Your task to perform on an android device: Show me the alarms in the clock app Image 0: 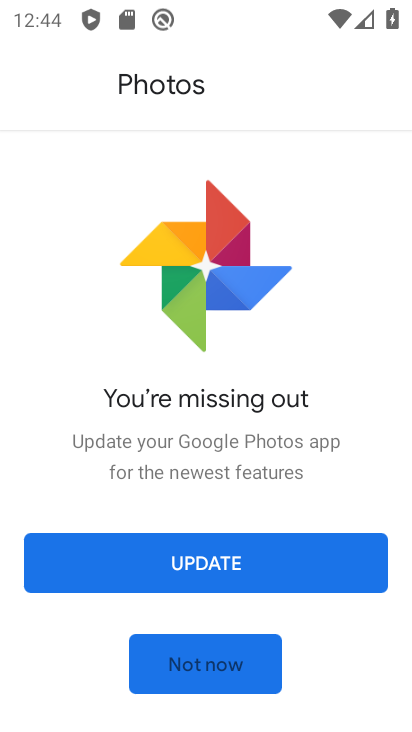
Step 0: press home button
Your task to perform on an android device: Show me the alarms in the clock app Image 1: 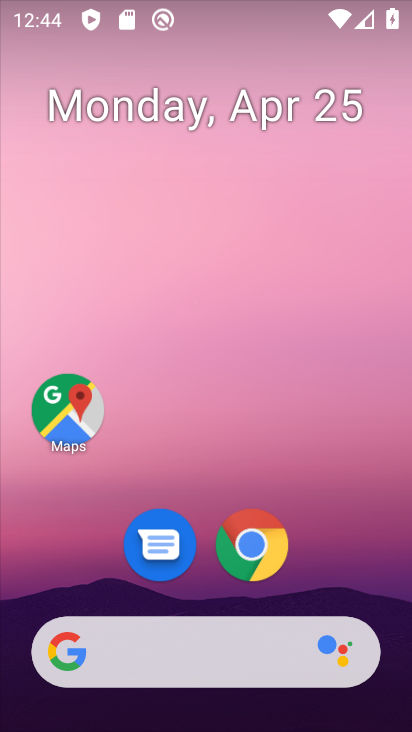
Step 1: drag from (306, 529) to (222, 162)
Your task to perform on an android device: Show me the alarms in the clock app Image 2: 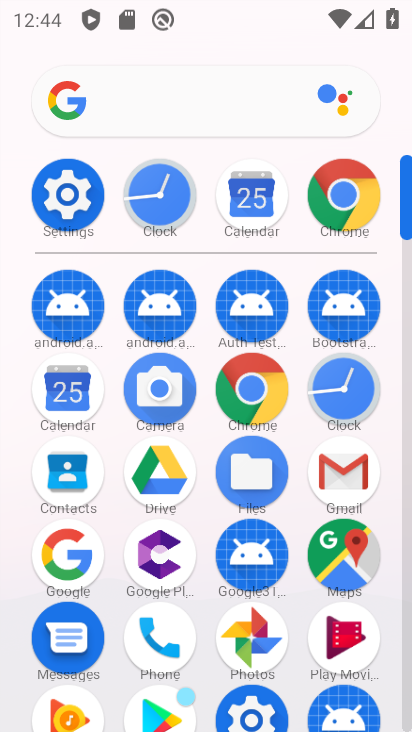
Step 2: click (335, 405)
Your task to perform on an android device: Show me the alarms in the clock app Image 3: 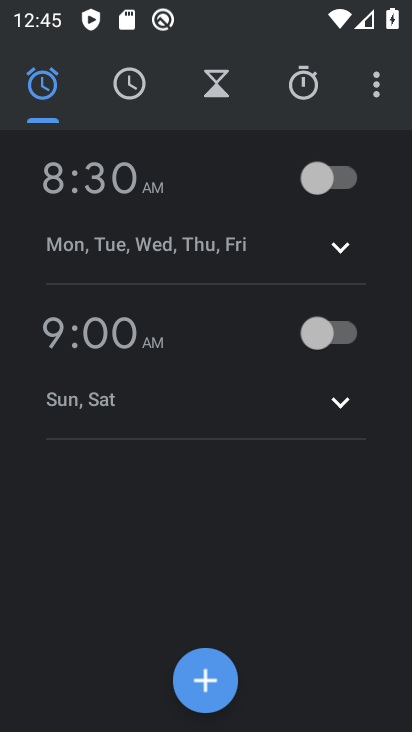
Step 3: task complete